Your task to perform on an android device: find photos in the google photos app Image 0: 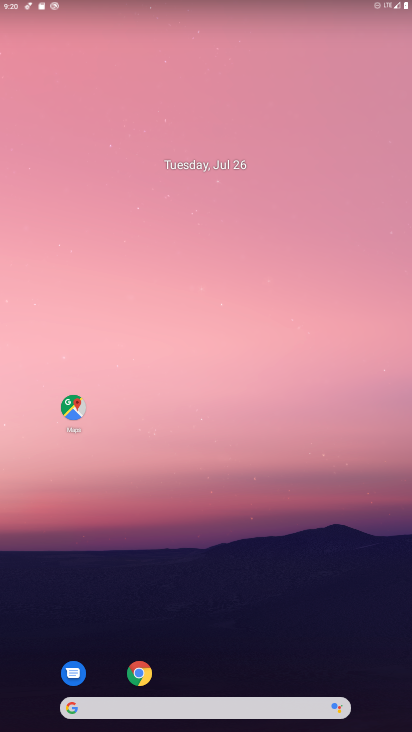
Step 0: drag from (284, 680) to (255, 22)
Your task to perform on an android device: find photos in the google photos app Image 1: 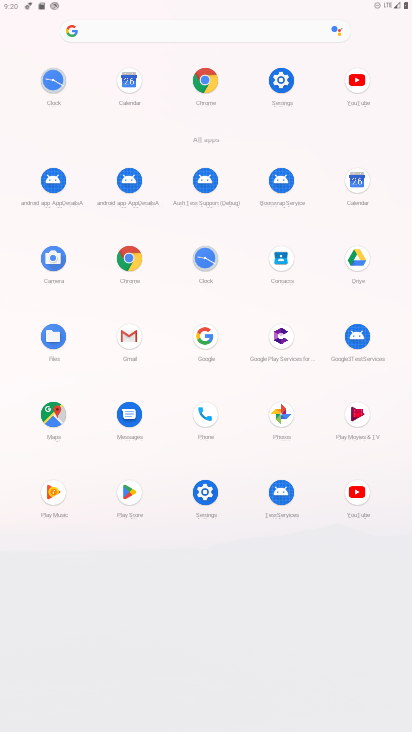
Step 1: click (288, 423)
Your task to perform on an android device: find photos in the google photos app Image 2: 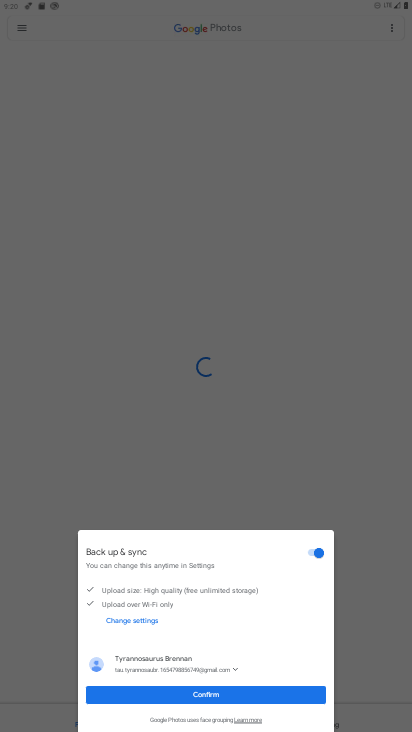
Step 2: click (159, 687)
Your task to perform on an android device: find photos in the google photos app Image 3: 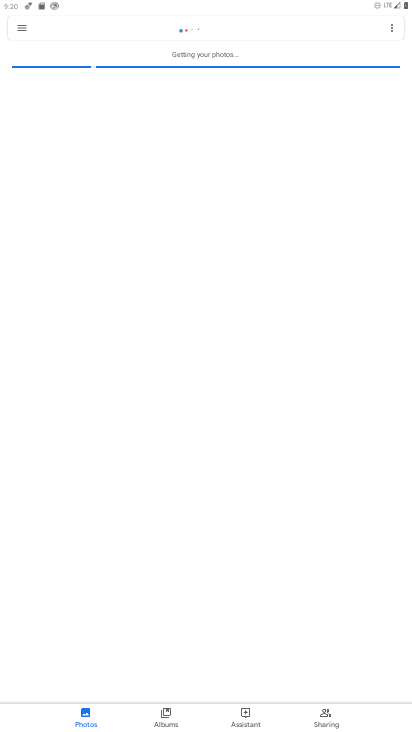
Step 3: click (82, 724)
Your task to perform on an android device: find photos in the google photos app Image 4: 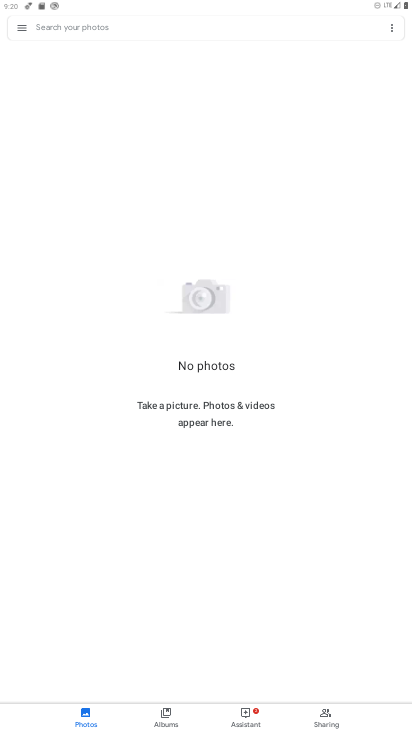
Step 4: click (76, 719)
Your task to perform on an android device: find photos in the google photos app Image 5: 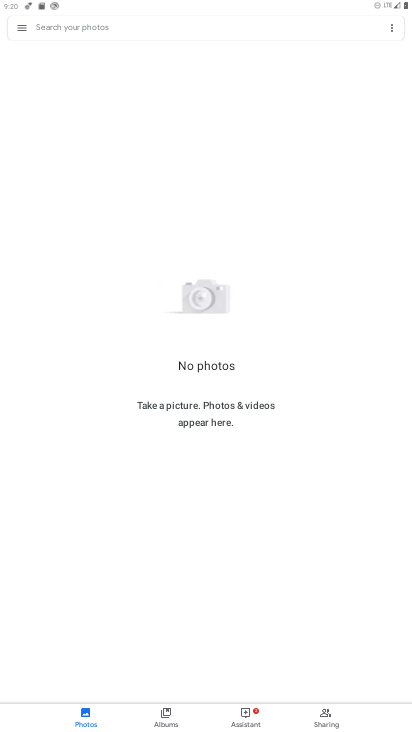
Step 5: task complete